Your task to perform on an android device: turn on wifi Image 0: 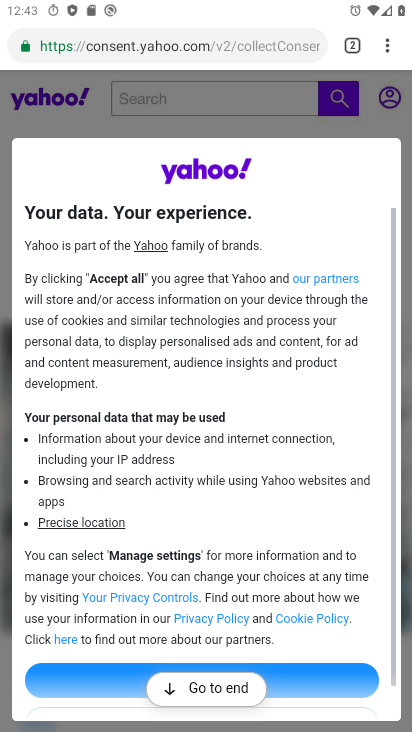
Step 0: press home button
Your task to perform on an android device: turn on wifi Image 1: 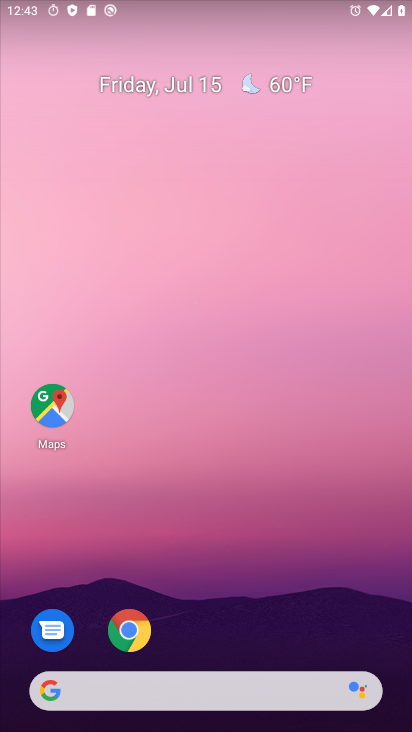
Step 1: drag from (217, 335) to (227, 78)
Your task to perform on an android device: turn on wifi Image 2: 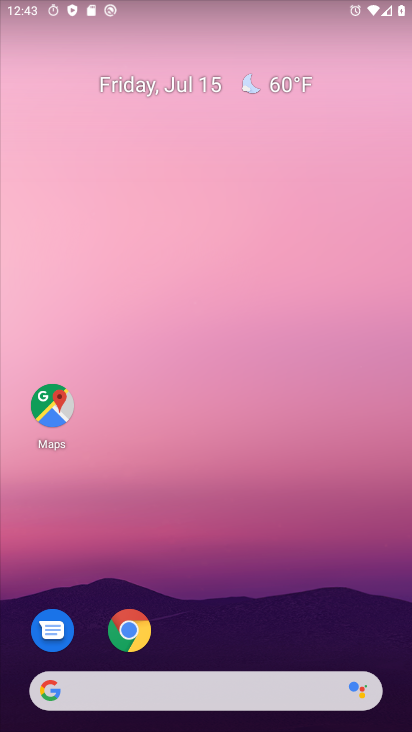
Step 2: drag from (207, 538) to (223, 46)
Your task to perform on an android device: turn on wifi Image 3: 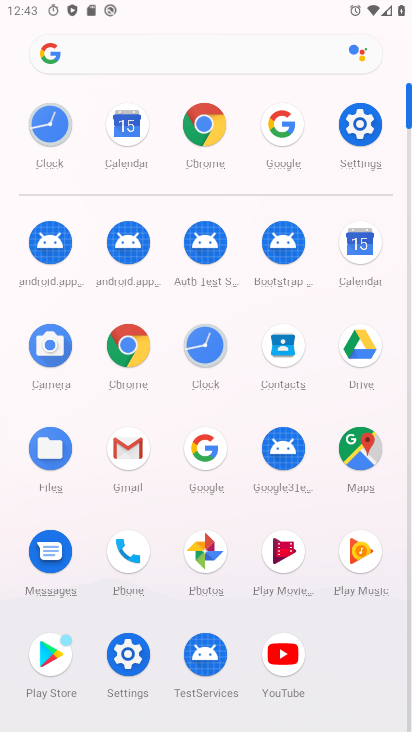
Step 3: click (360, 140)
Your task to perform on an android device: turn on wifi Image 4: 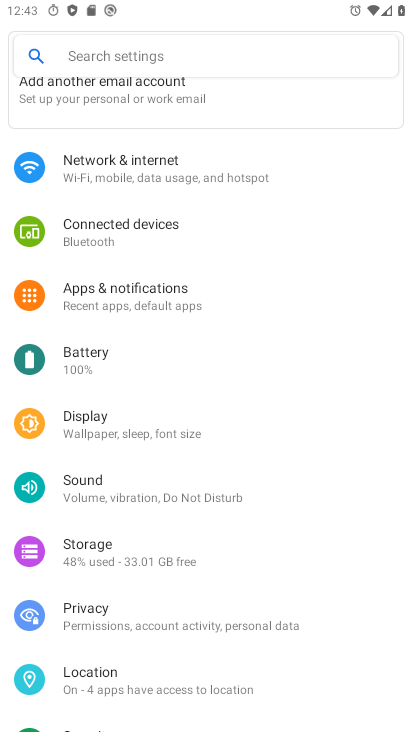
Step 4: click (167, 171)
Your task to perform on an android device: turn on wifi Image 5: 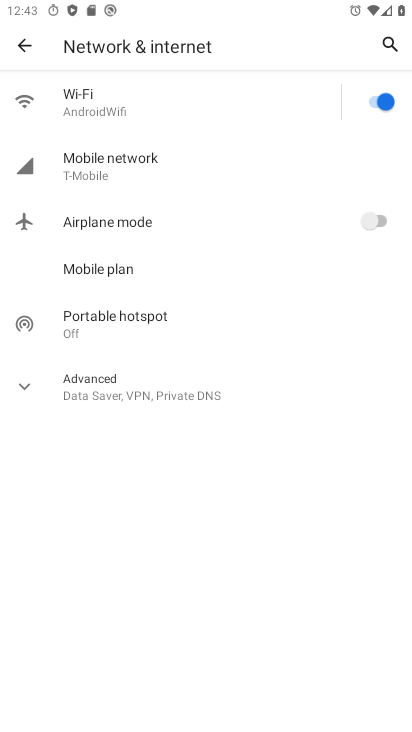
Step 5: task complete